Your task to perform on an android device: Open calendar and show me the fourth week of next month Image 0: 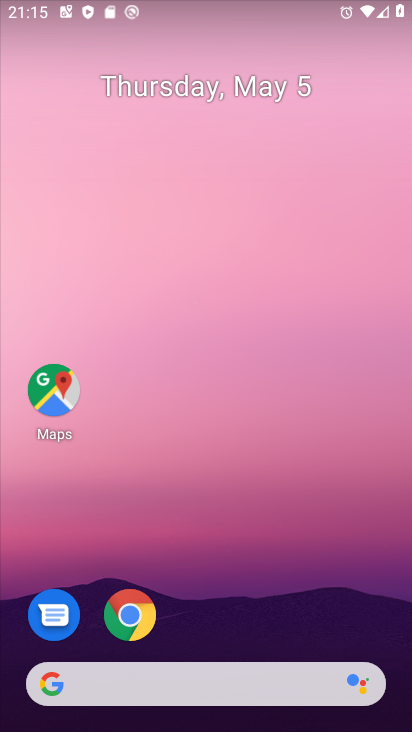
Step 0: drag from (200, 606) to (283, 71)
Your task to perform on an android device: Open calendar and show me the fourth week of next month Image 1: 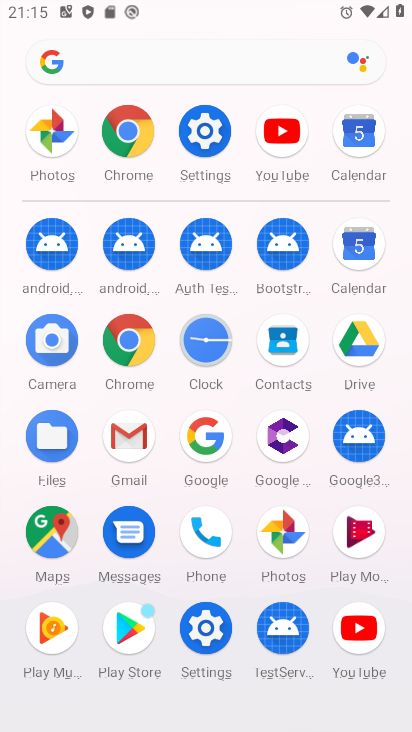
Step 1: click (362, 255)
Your task to perform on an android device: Open calendar and show me the fourth week of next month Image 2: 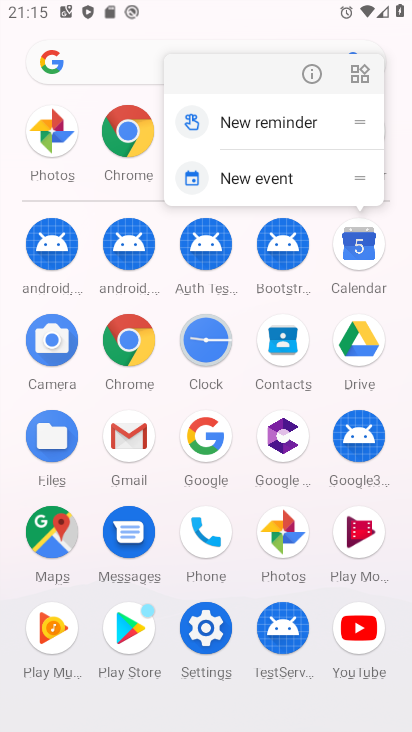
Step 2: click (354, 276)
Your task to perform on an android device: Open calendar and show me the fourth week of next month Image 3: 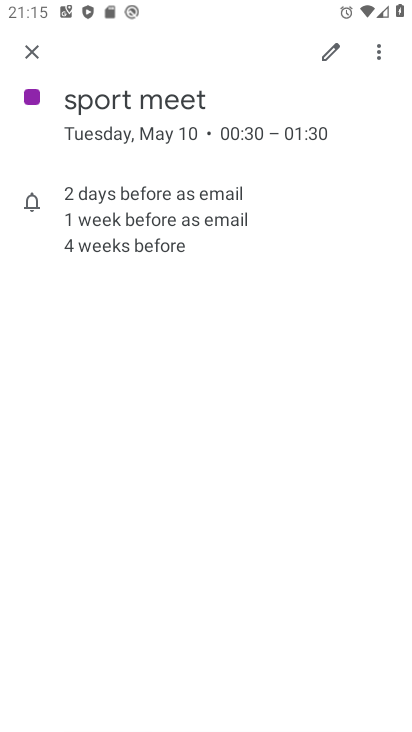
Step 3: click (34, 55)
Your task to perform on an android device: Open calendar and show me the fourth week of next month Image 4: 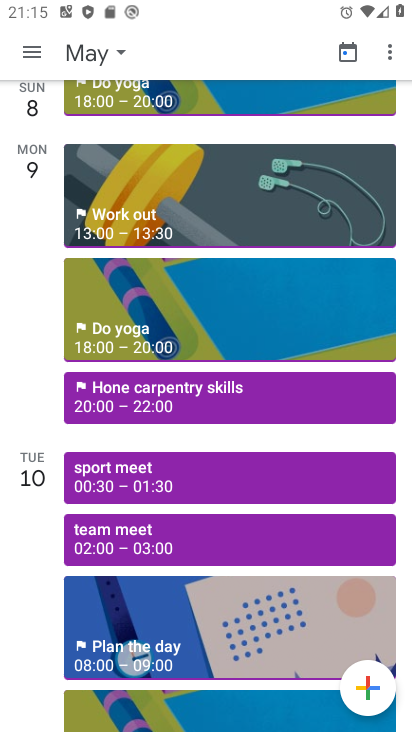
Step 4: click (88, 61)
Your task to perform on an android device: Open calendar and show me the fourth week of next month Image 5: 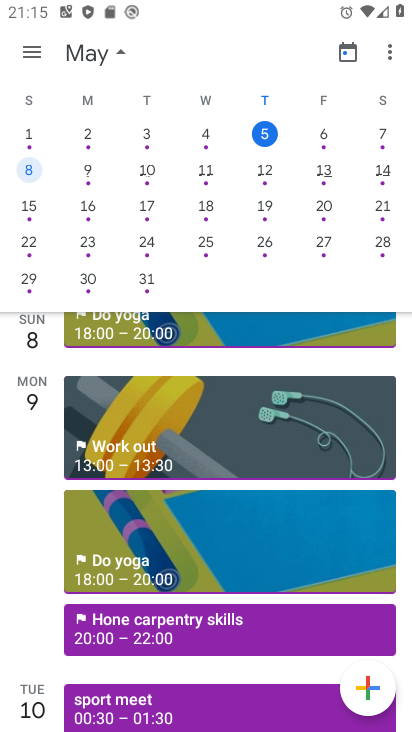
Step 5: drag from (312, 204) to (0, 217)
Your task to perform on an android device: Open calendar and show me the fourth week of next month Image 6: 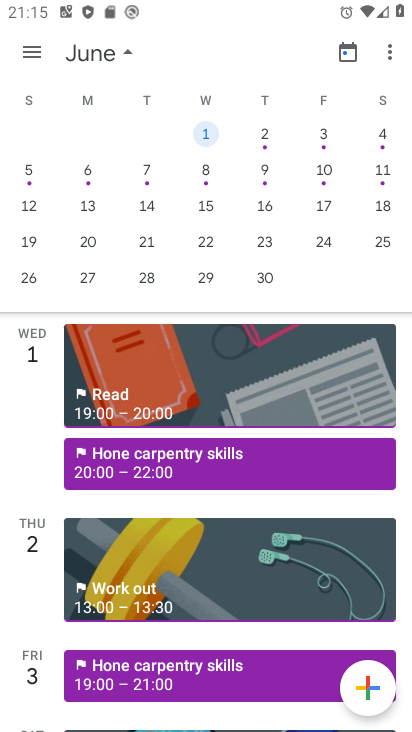
Step 6: drag from (374, 218) to (10, 66)
Your task to perform on an android device: Open calendar and show me the fourth week of next month Image 7: 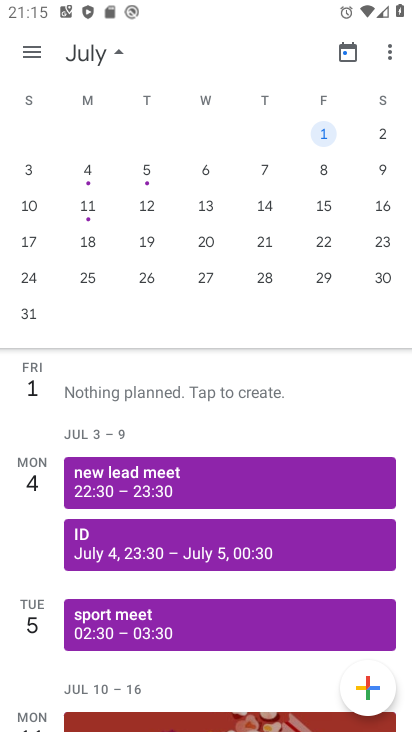
Step 7: click (32, 56)
Your task to perform on an android device: Open calendar and show me the fourth week of next month Image 8: 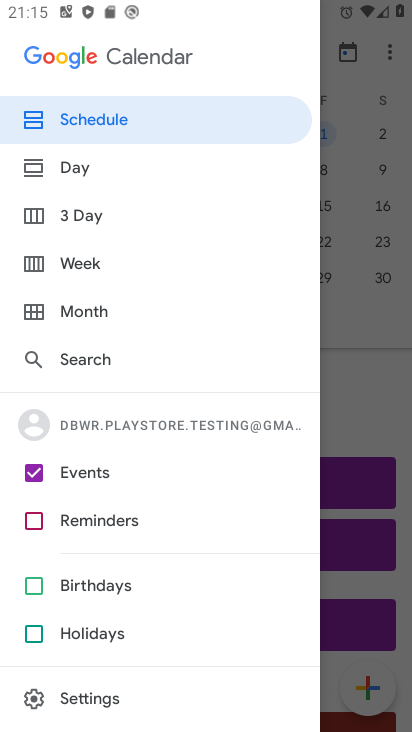
Step 8: click (94, 270)
Your task to perform on an android device: Open calendar and show me the fourth week of next month Image 9: 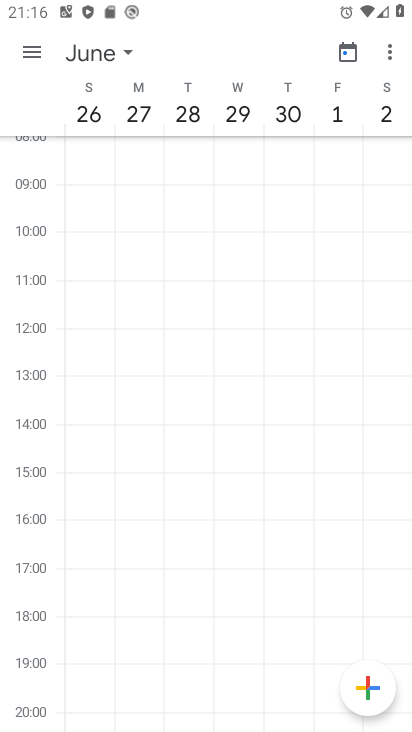
Step 9: task complete